Your task to perform on an android device: turn on priority inbox in the gmail app Image 0: 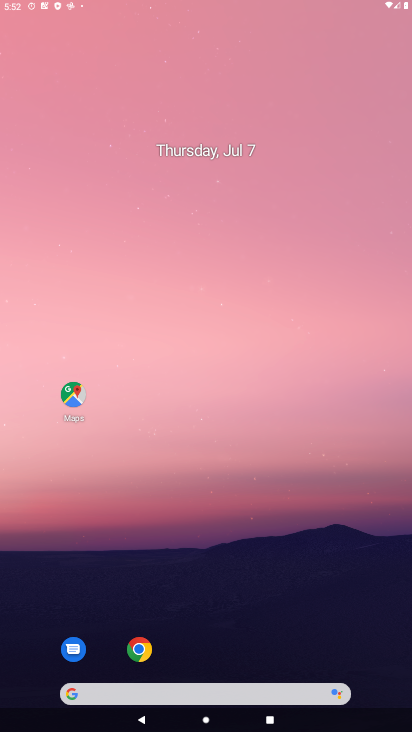
Step 0: click (218, 84)
Your task to perform on an android device: turn on priority inbox in the gmail app Image 1: 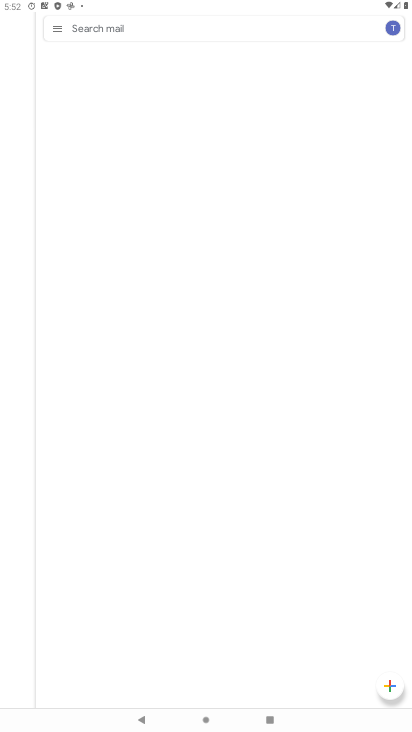
Step 1: press home button
Your task to perform on an android device: turn on priority inbox in the gmail app Image 2: 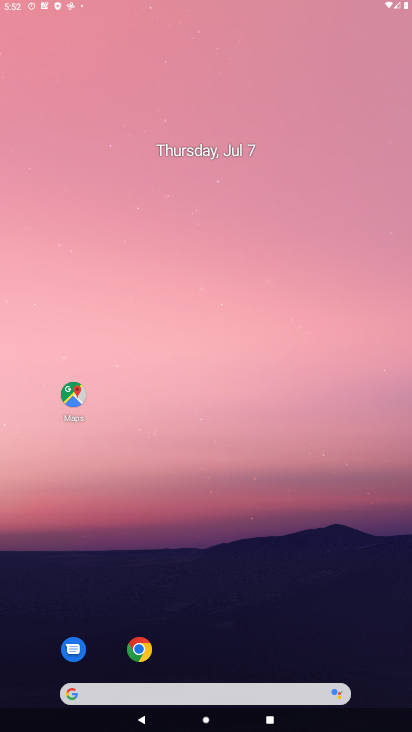
Step 2: drag from (378, 669) to (177, 28)
Your task to perform on an android device: turn on priority inbox in the gmail app Image 3: 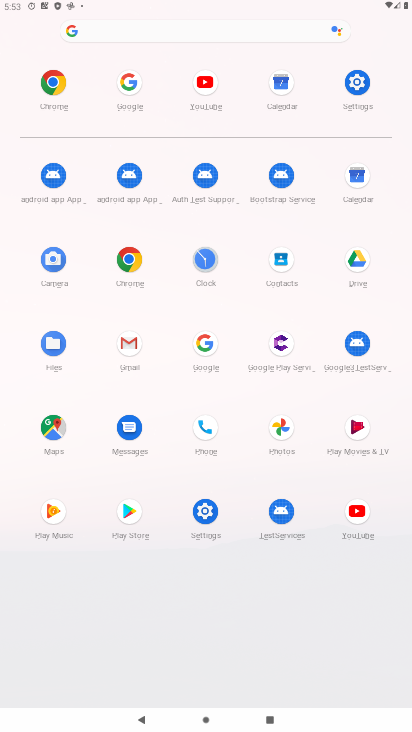
Step 3: click (119, 327)
Your task to perform on an android device: turn on priority inbox in the gmail app Image 4: 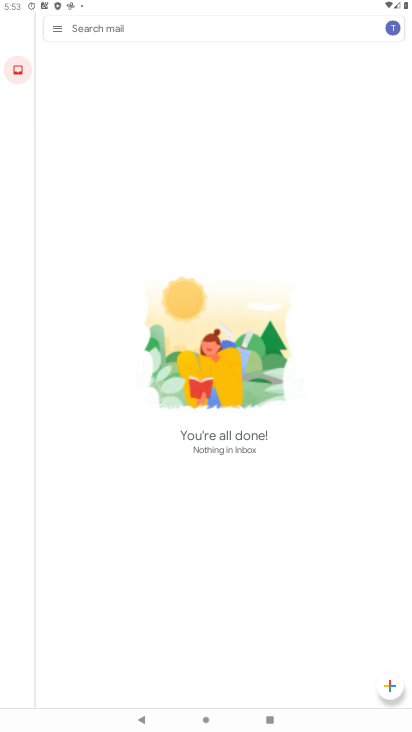
Step 4: click (59, 29)
Your task to perform on an android device: turn on priority inbox in the gmail app Image 5: 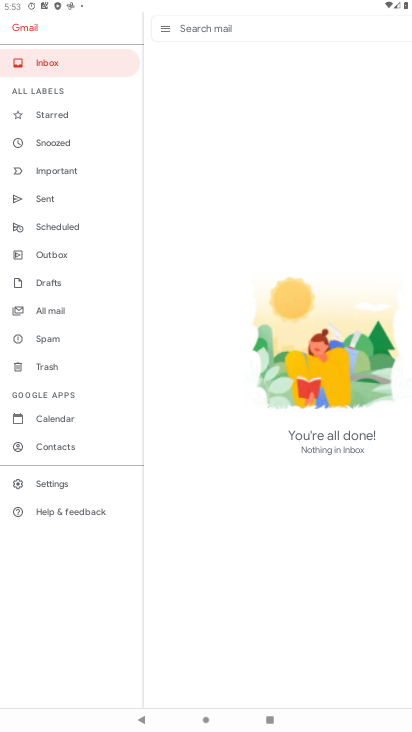
Step 5: click (63, 481)
Your task to perform on an android device: turn on priority inbox in the gmail app Image 6: 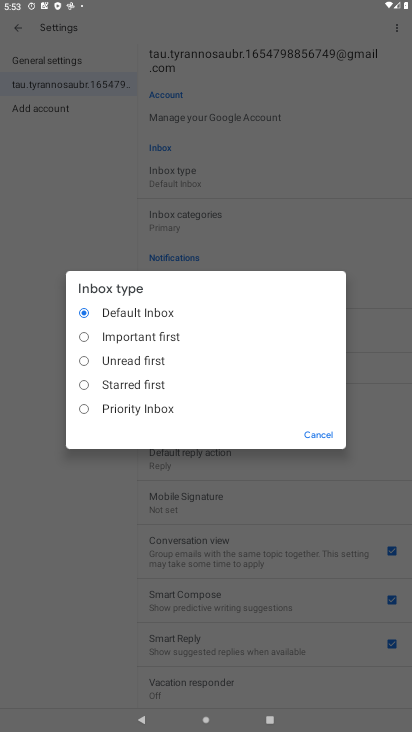
Step 6: click (320, 435)
Your task to perform on an android device: turn on priority inbox in the gmail app Image 7: 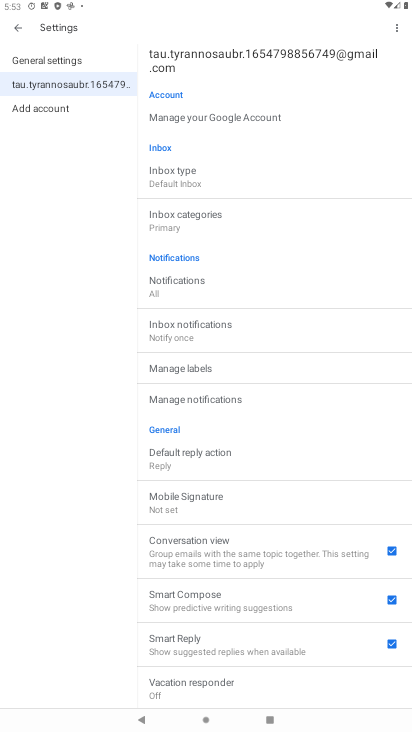
Step 7: click (182, 187)
Your task to perform on an android device: turn on priority inbox in the gmail app Image 8: 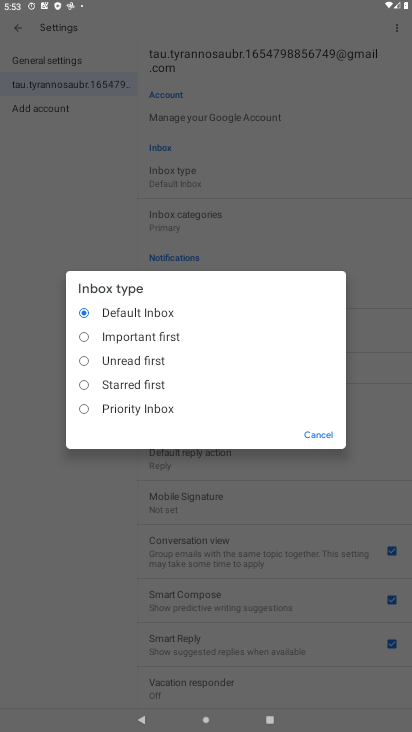
Step 8: click (83, 408)
Your task to perform on an android device: turn on priority inbox in the gmail app Image 9: 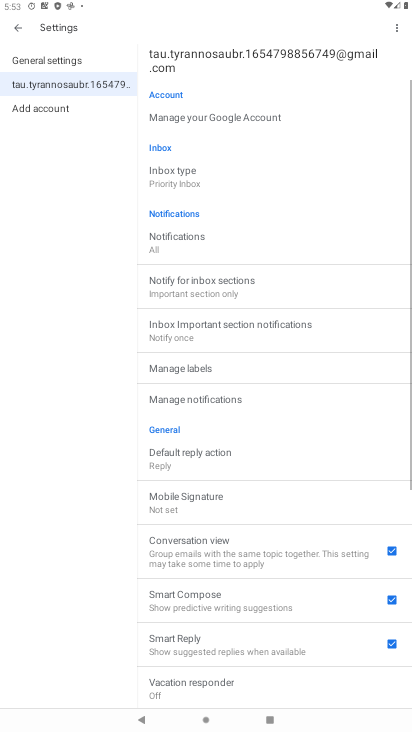
Step 9: task complete